Your task to perform on an android device: Open display settings Image 0: 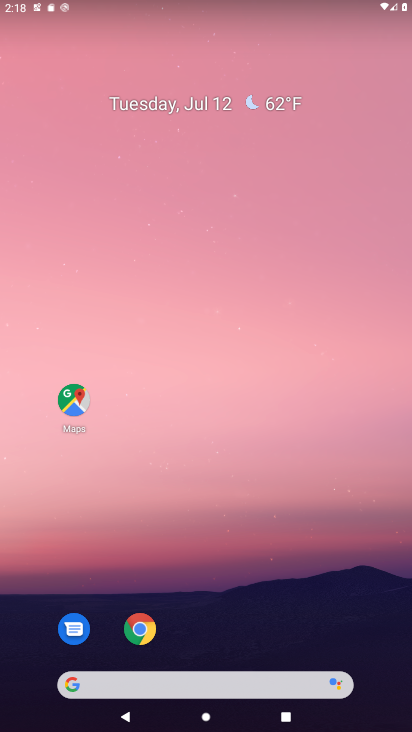
Step 0: press home button
Your task to perform on an android device: Open display settings Image 1: 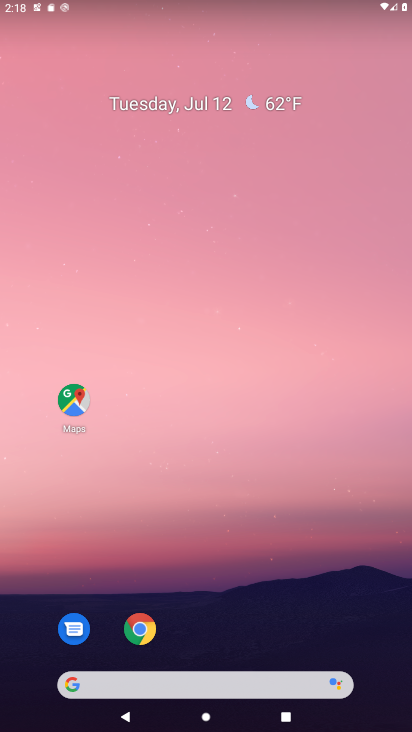
Step 1: drag from (225, 652) to (216, 268)
Your task to perform on an android device: Open display settings Image 2: 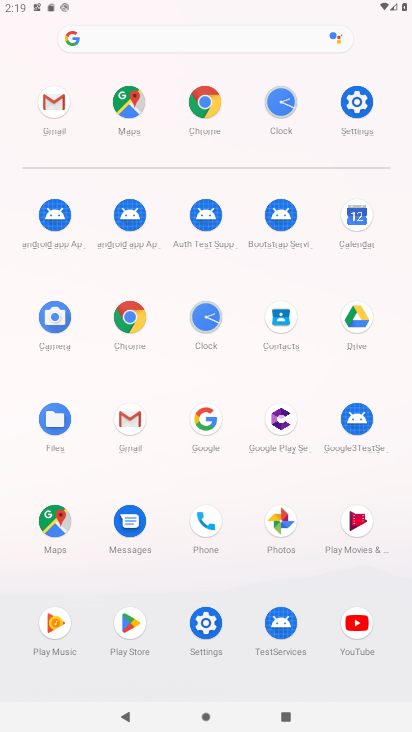
Step 2: click (359, 97)
Your task to perform on an android device: Open display settings Image 3: 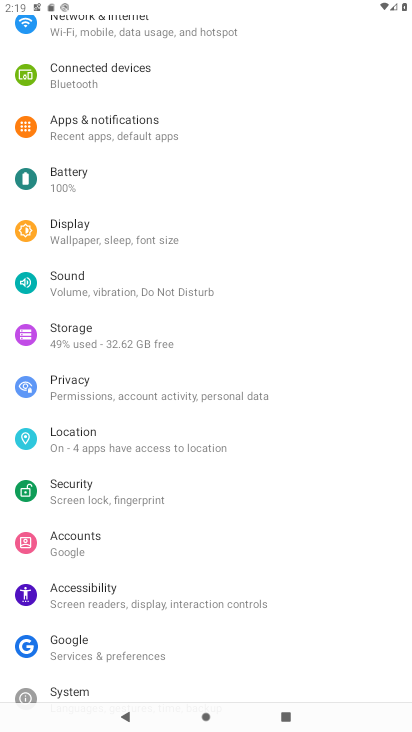
Step 3: click (103, 229)
Your task to perform on an android device: Open display settings Image 4: 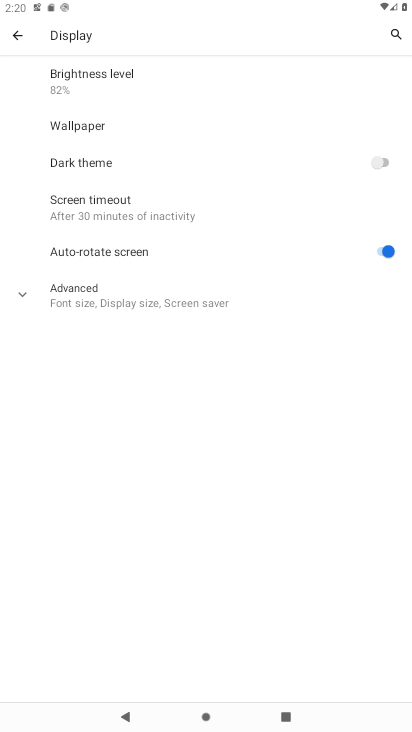
Step 4: click (38, 302)
Your task to perform on an android device: Open display settings Image 5: 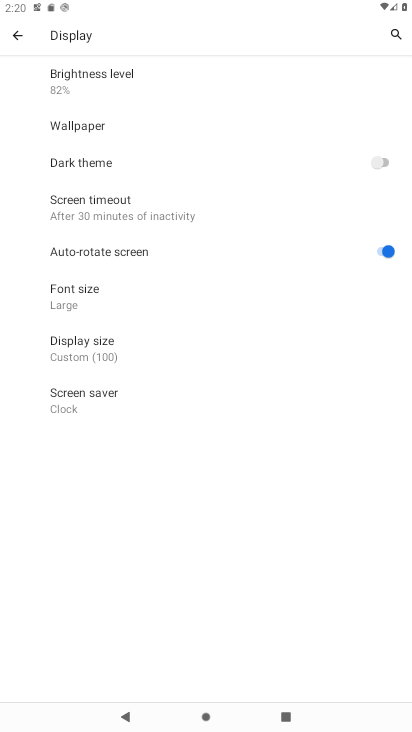
Step 5: task complete